Your task to perform on an android device: search for starred emails in the gmail app Image 0: 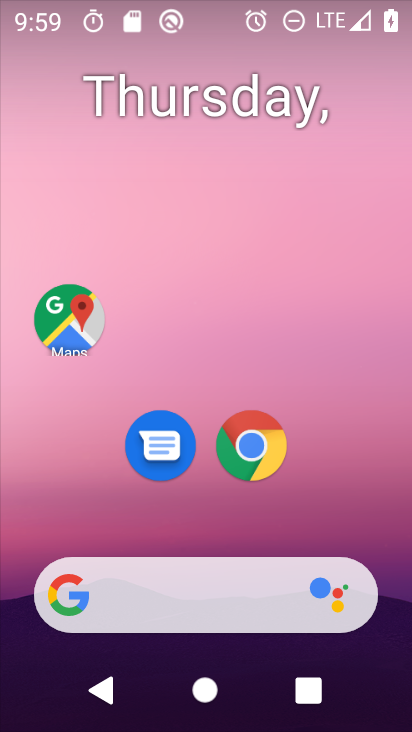
Step 0: drag from (196, 520) to (211, 139)
Your task to perform on an android device: search for starred emails in the gmail app Image 1: 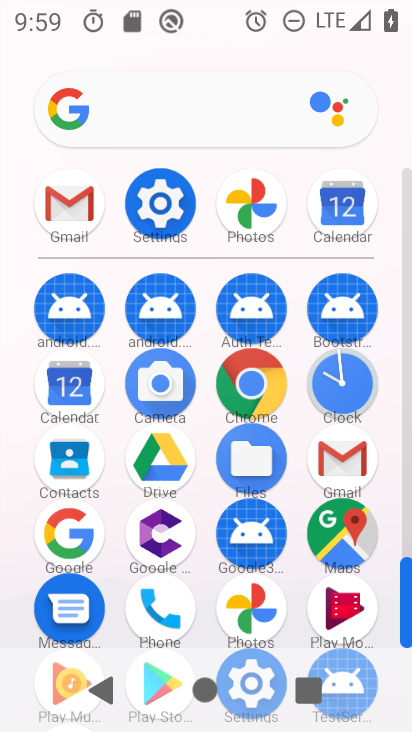
Step 1: click (334, 444)
Your task to perform on an android device: search for starred emails in the gmail app Image 2: 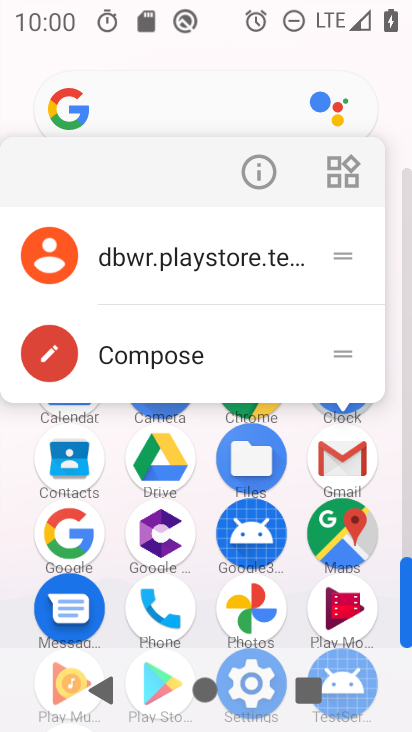
Step 2: click (265, 177)
Your task to perform on an android device: search for starred emails in the gmail app Image 3: 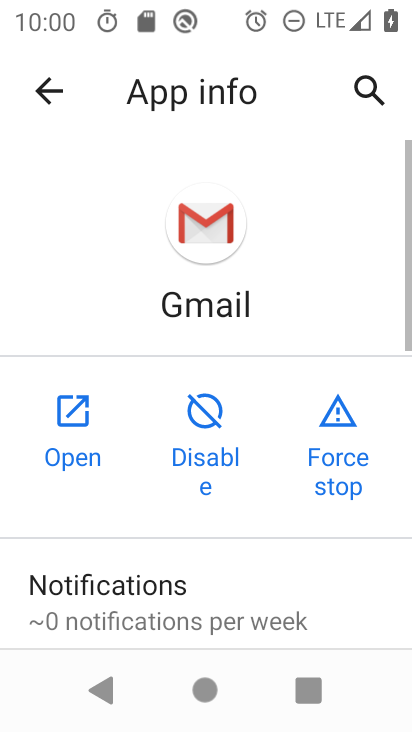
Step 3: click (74, 411)
Your task to perform on an android device: search for starred emails in the gmail app Image 4: 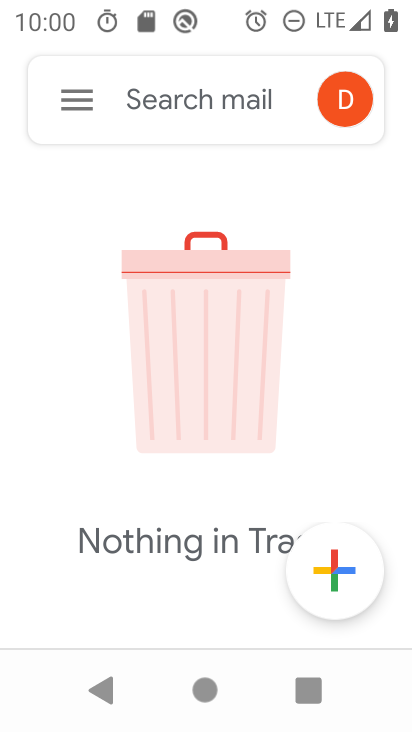
Step 4: click (80, 105)
Your task to perform on an android device: search for starred emails in the gmail app Image 5: 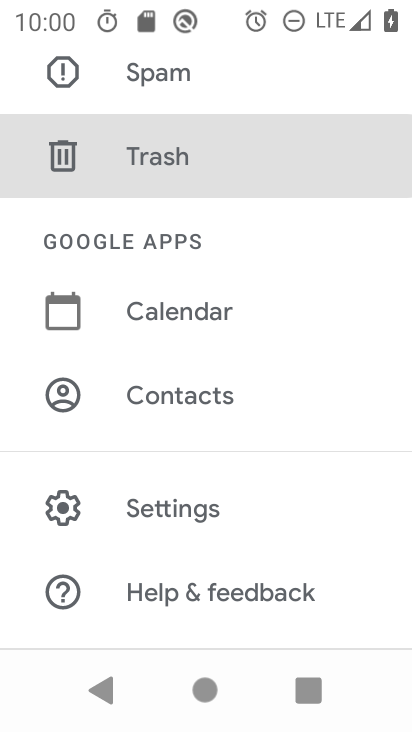
Step 5: drag from (169, 153) to (247, 596)
Your task to perform on an android device: search for starred emails in the gmail app Image 6: 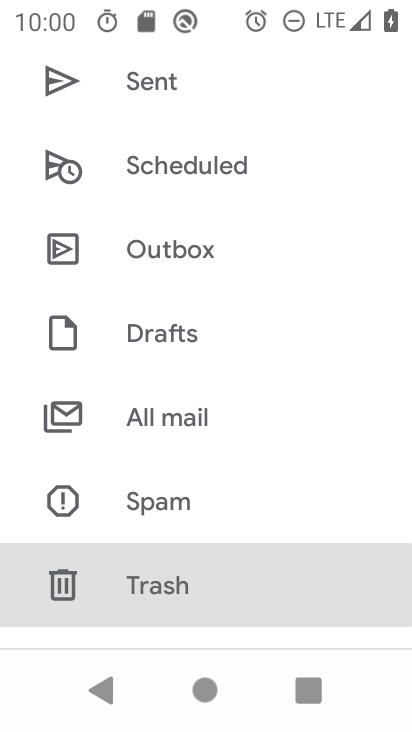
Step 6: drag from (180, 107) to (244, 723)
Your task to perform on an android device: search for starred emails in the gmail app Image 7: 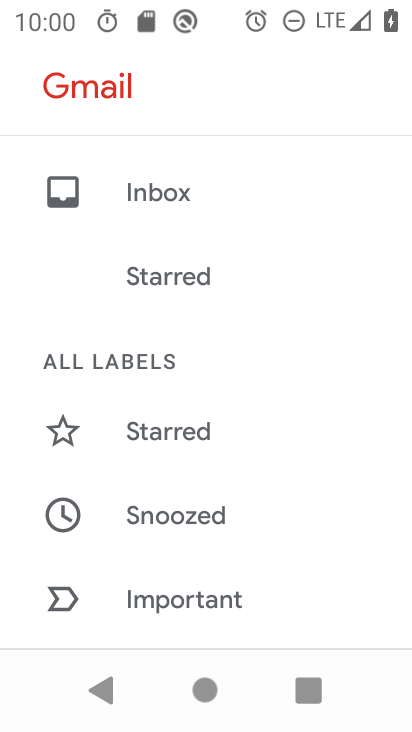
Step 7: click (225, 280)
Your task to perform on an android device: search for starred emails in the gmail app Image 8: 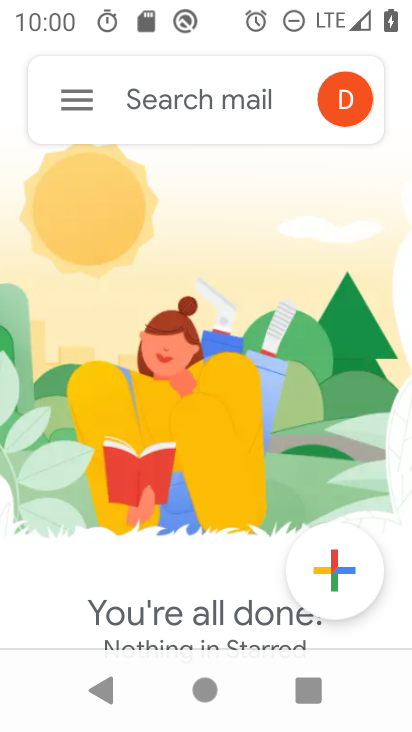
Step 8: task complete